Your task to perform on an android device: add a contact in the contacts app Image 0: 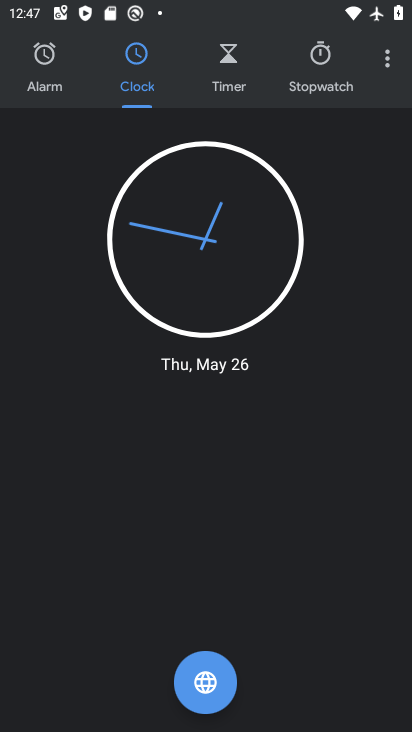
Step 0: press home button
Your task to perform on an android device: add a contact in the contacts app Image 1: 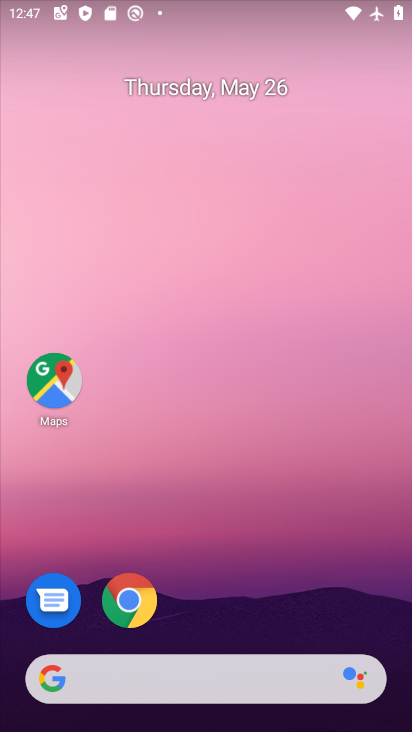
Step 1: drag from (264, 507) to (249, 116)
Your task to perform on an android device: add a contact in the contacts app Image 2: 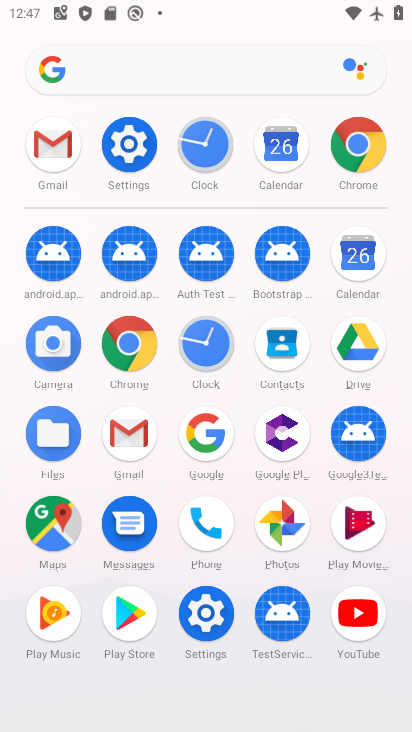
Step 2: click (282, 347)
Your task to perform on an android device: add a contact in the contacts app Image 3: 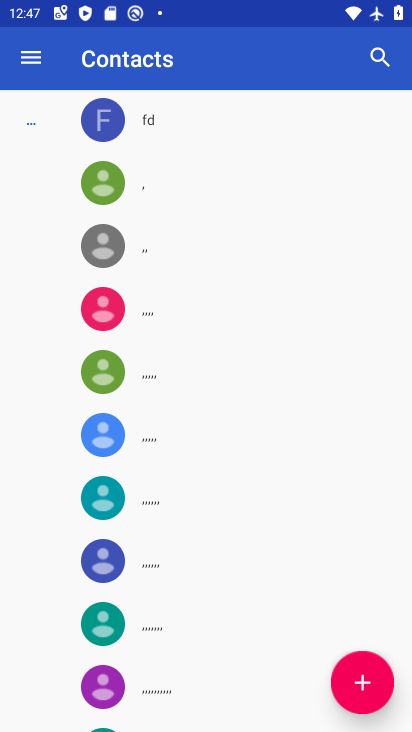
Step 3: click (344, 662)
Your task to perform on an android device: add a contact in the contacts app Image 4: 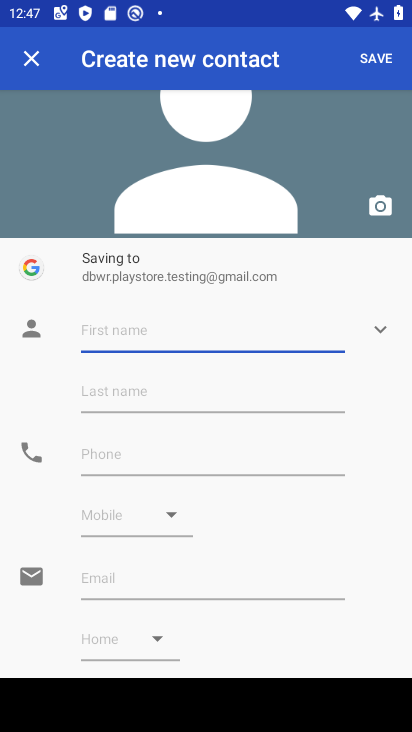
Step 4: type "nabalik"
Your task to perform on an android device: add a contact in the contacts app Image 5: 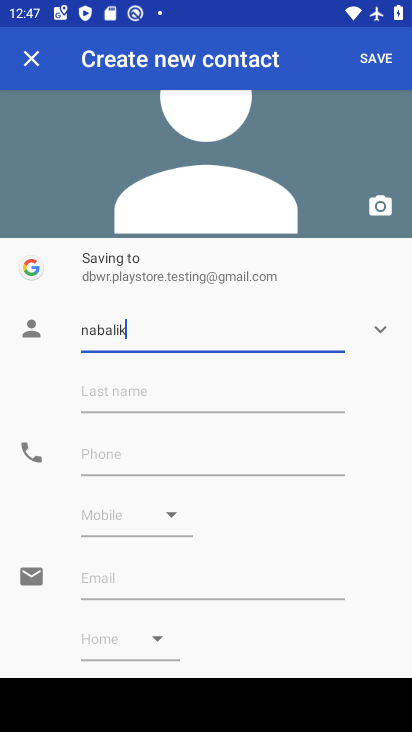
Step 5: click (372, 55)
Your task to perform on an android device: add a contact in the contacts app Image 6: 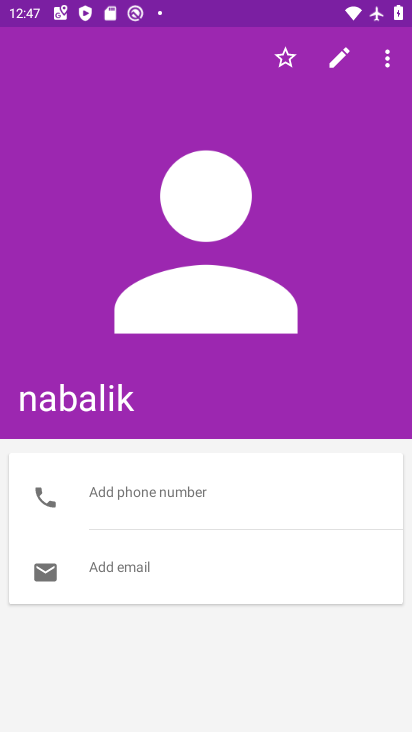
Step 6: task complete